Your task to perform on an android device: empty trash in the gmail app Image 0: 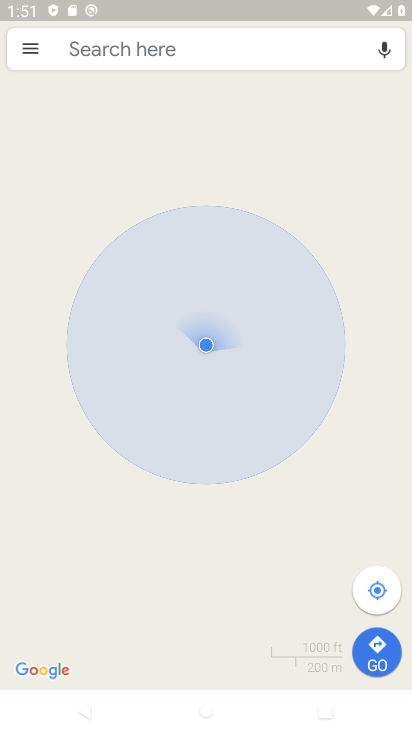
Step 0: press home button
Your task to perform on an android device: empty trash in the gmail app Image 1: 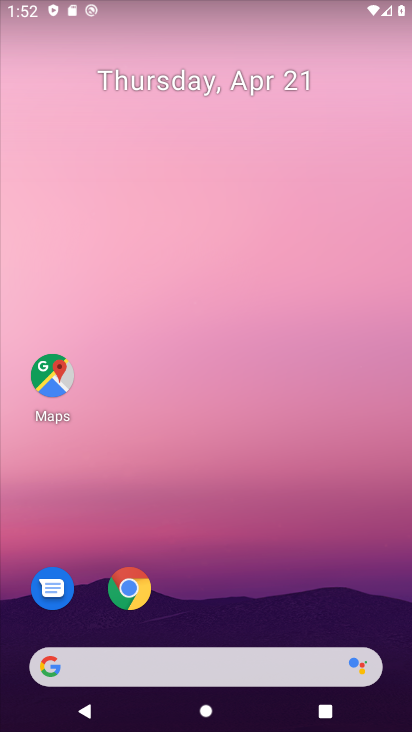
Step 1: drag from (234, 607) to (137, 117)
Your task to perform on an android device: empty trash in the gmail app Image 2: 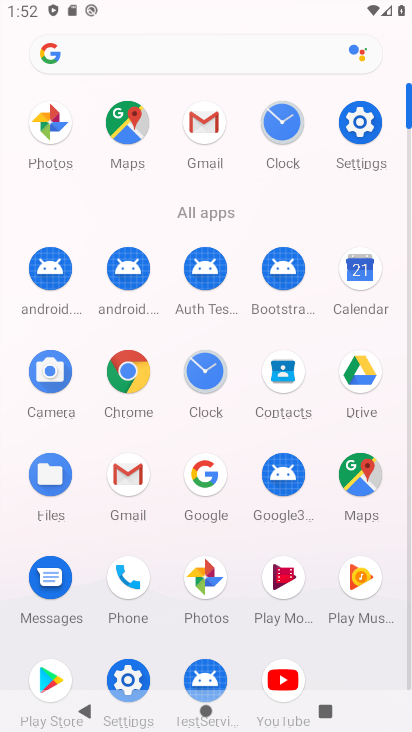
Step 2: click (212, 131)
Your task to perform on an android device: empty trash in the gmail app Image 3: 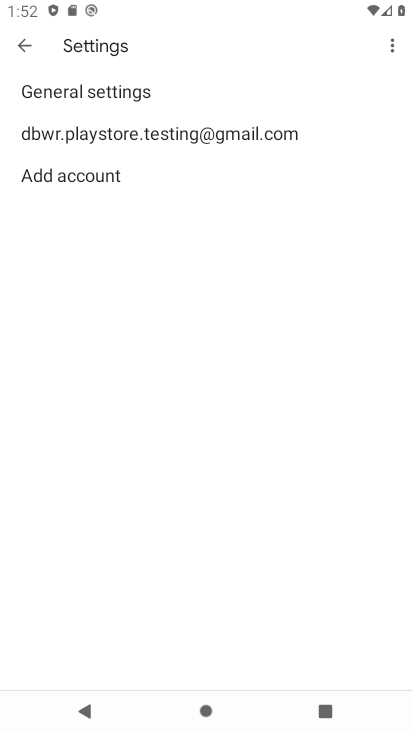
Step 3: click (16, 44)
Your task to perform on an android device: empty trash in the gmail app Image 4: 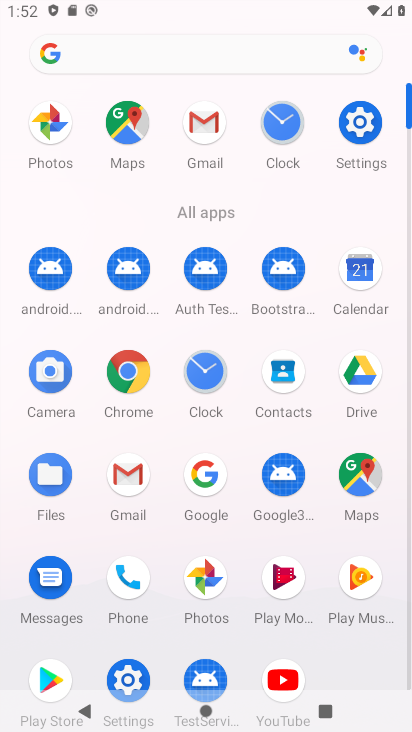
Step 4: click (191, 128)
Your task to perform on an android device: empty trash in the gmail app Image 5: 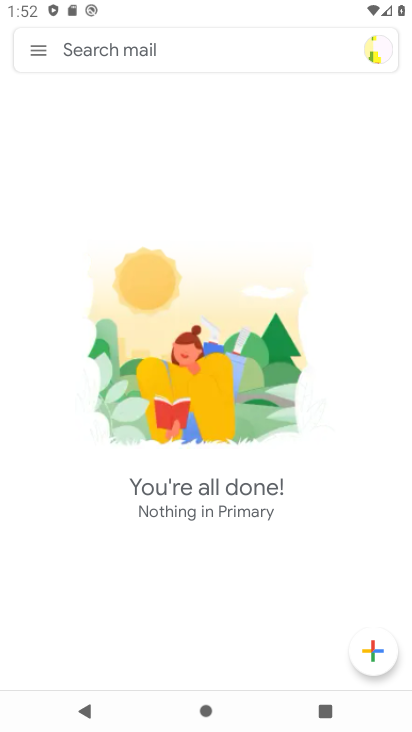
Step 5: click (35, 44)
Your task to perform on an android device: empty trash in the gmail app Image 6: 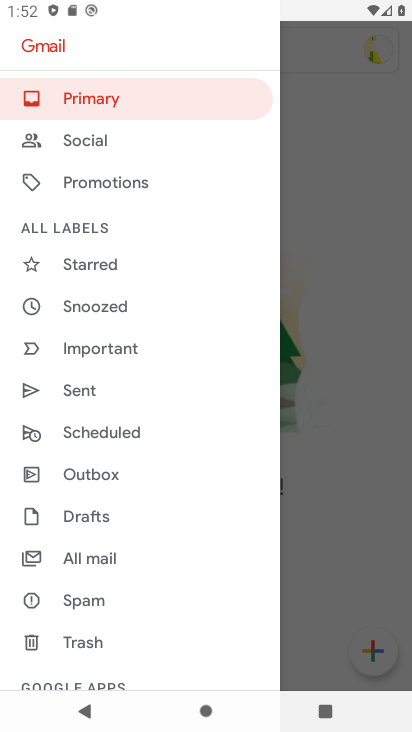
Step 6: click (101, 631)
Your task to perform on an android device: empty trash in the gmail app Image 7: 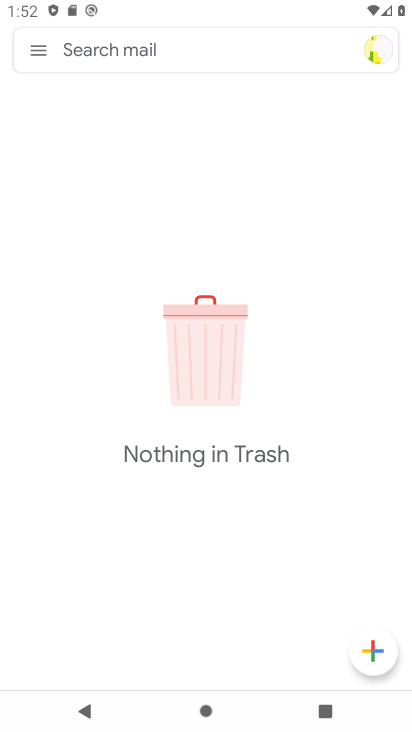
Step 7: task complete